Your task to perform on an android device: Go to ESPN.com Image 0: 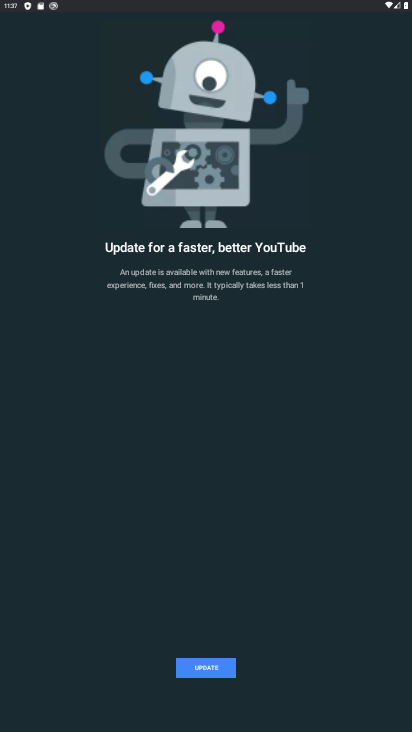
Step 0: press home button
Your task to perform on an android device: Go to ESPN.com Image 1: 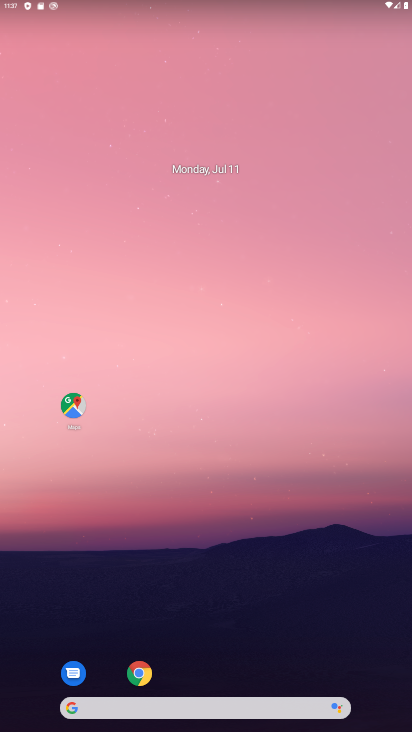
Step 1: click (133, 671)
Your task to perform on an android device: Go to ESPN.com Image 2: 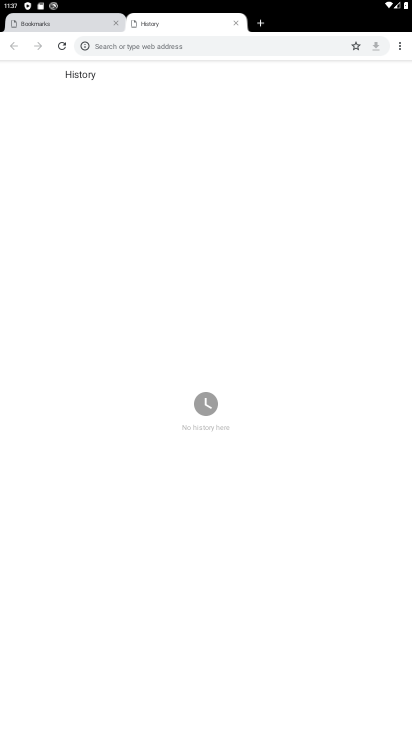
Step 2: click (130, 43)
Your task to perform on an android device: Go to ESPN.com Image 3: 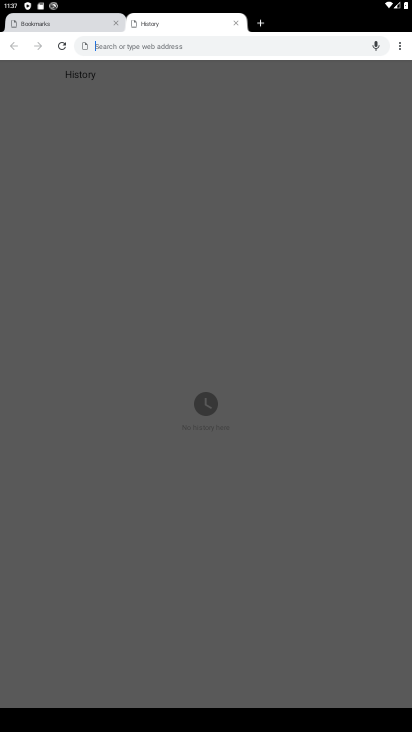
Step 3: type "espn.com"
Your task to perform on an android device: Go to ESPN.com Image 4: 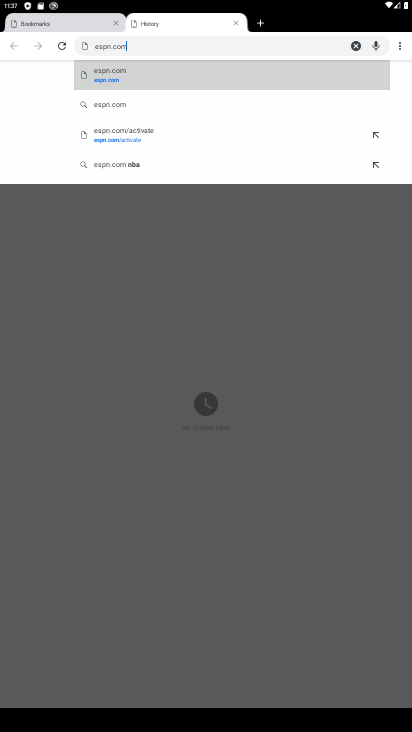
Step 4: click (127, 75)
Your task to perform on an android device: Go to ESPN.com Image 5: 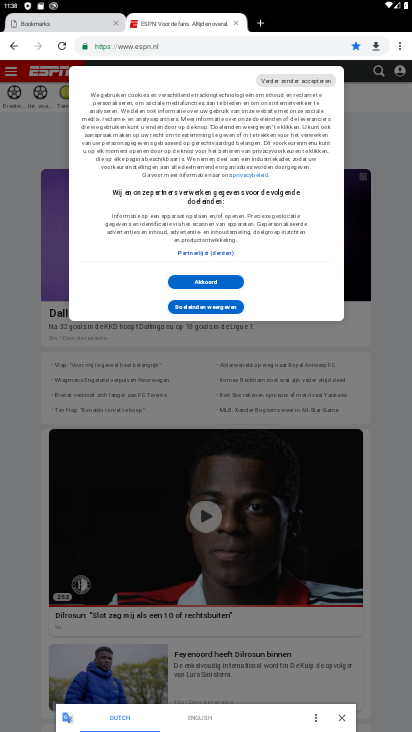
Step 5: click (192, 287)
Your task to perform on an android device: Go to ESPN.com Image 6: 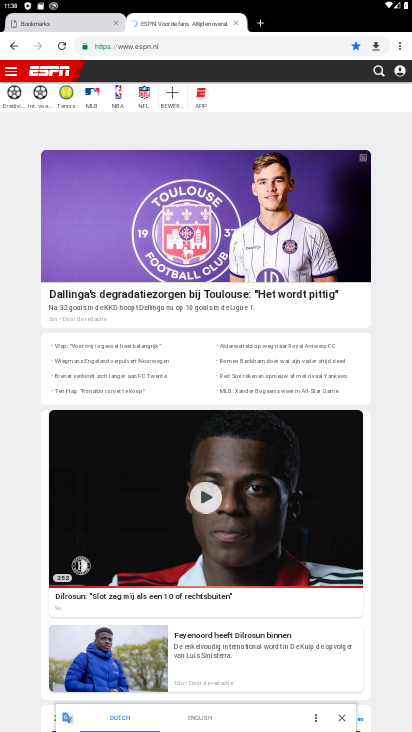
Step 6: task complete